Your task to perform on an android device: set the stopwatch Image 0: 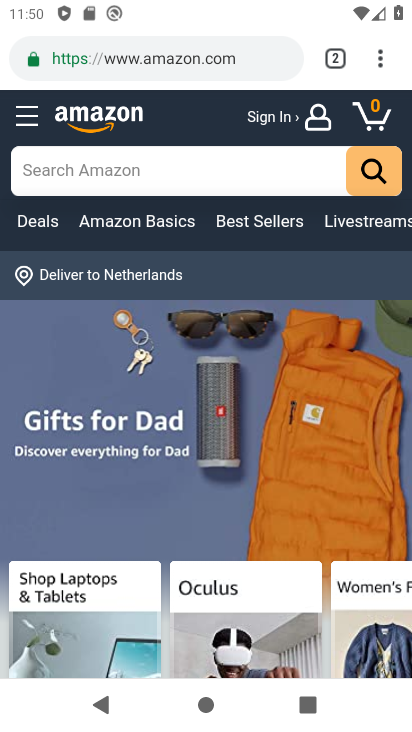
Step 0: press home button
Your task to perform on an android device: set the stopwatch Image 1: 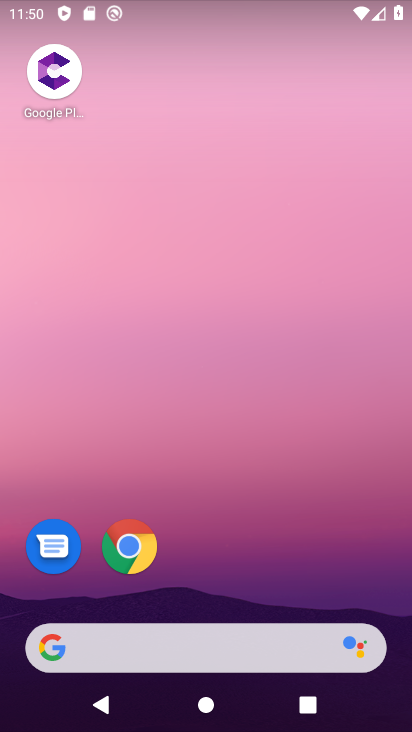
Step 1: drag from (333, 532) to (318, 103)
Your task to perform on an android device: set the stopwatch Image 2: 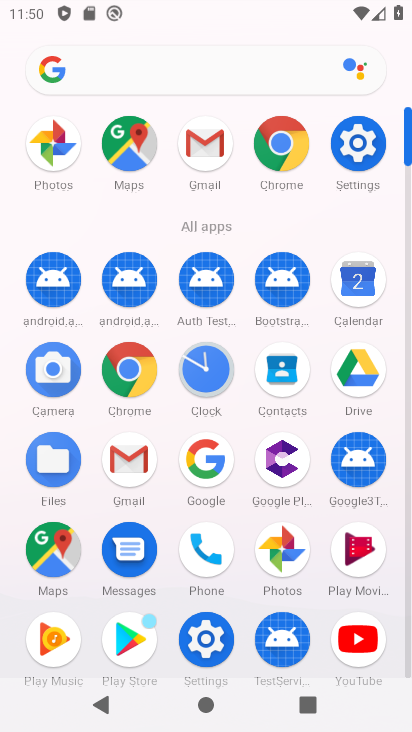
Step 2: drag from (215, 372) to (55, 160)
Your task to perform on an android device: set the stopwatch Image 3: 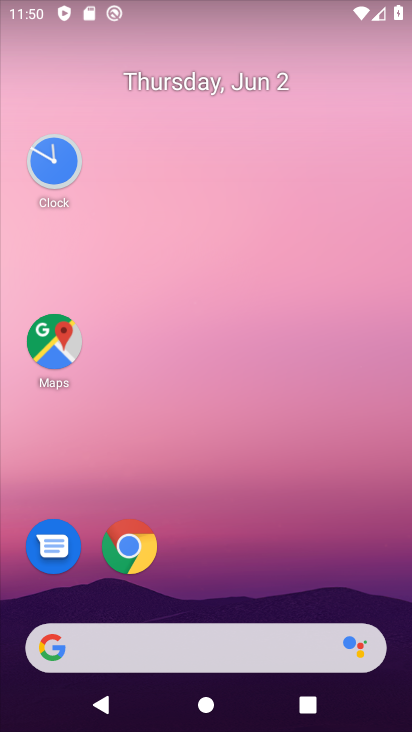
Step 3: click (46, 157)
Your task to perform on an android device: set the stopwatch Image 4: 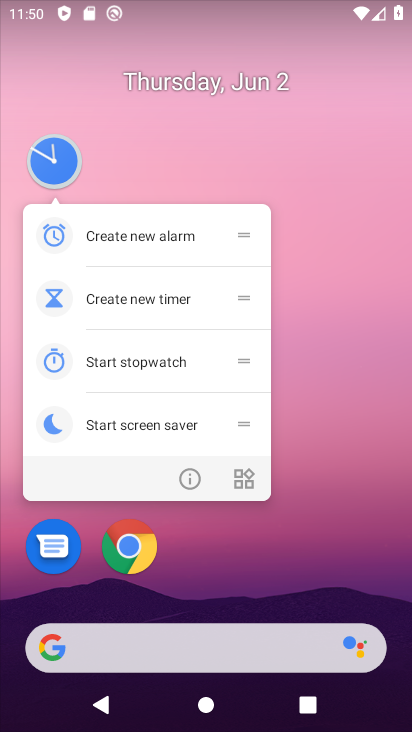
Step 4: click (48, 155)
Your task to perform on an android device: set the stopwatch Image 5: 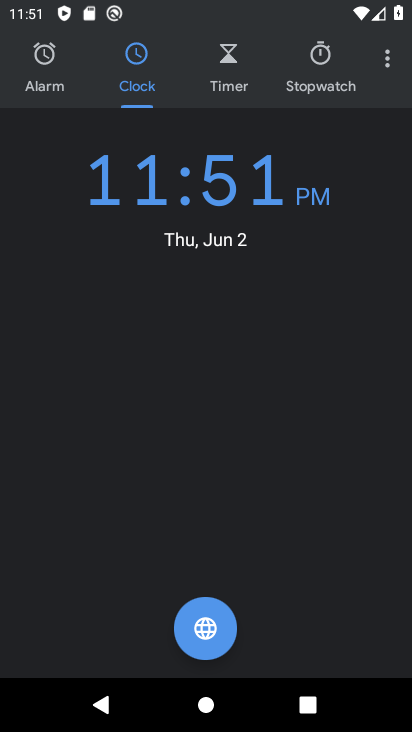
Step 5: click (311, 57)
Your task to perform on an android device: set the stopwatch Image 6: 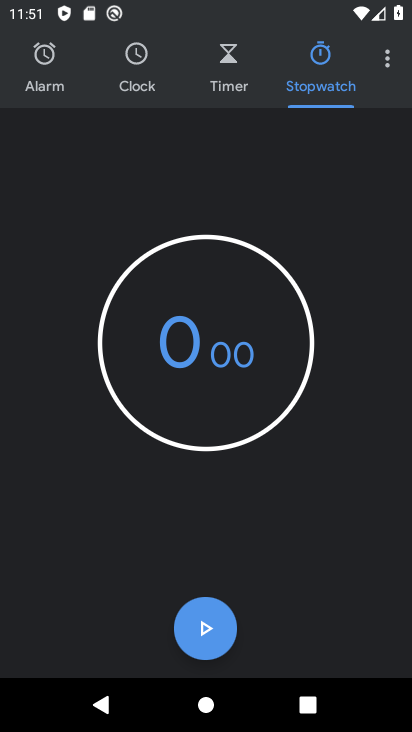
Step 6: task complete